Your task to perform on an android device: Open settings on Google Maps Image 0: 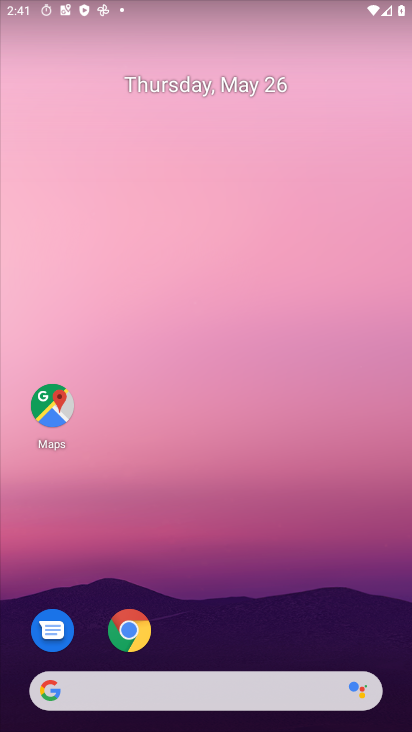
Step 0: click (58, 418)
Your task to perform on an android device: Open settings on Google Maps Image 1: 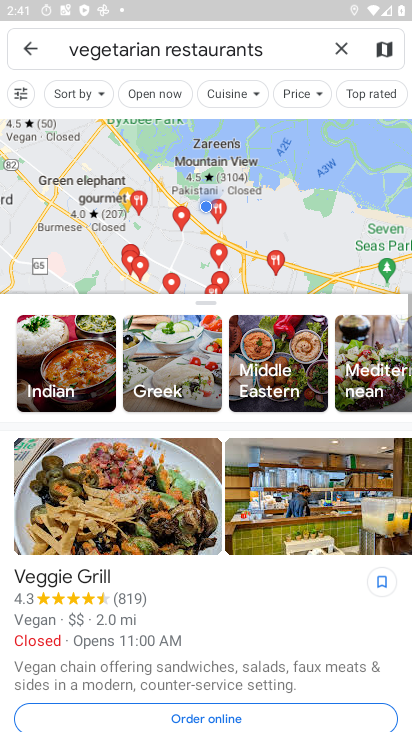
Step 1: click (60, 41)
Your task to perform on an android device: Open settings on Google Maps Image 2: 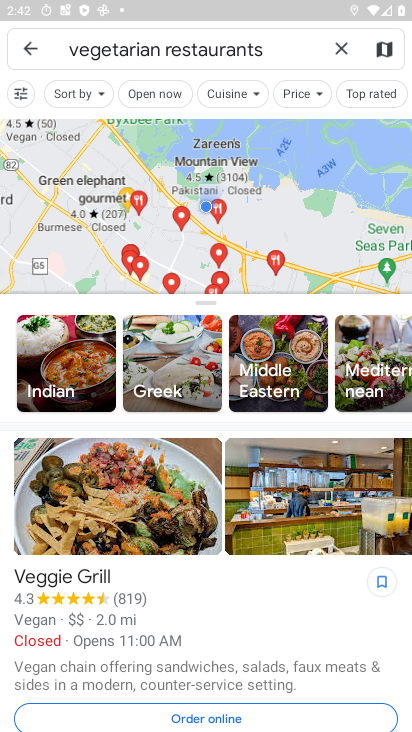
Step 2: click (18, 42)
Your task to perform on an android device: Open settings on Google Maps Image 3: 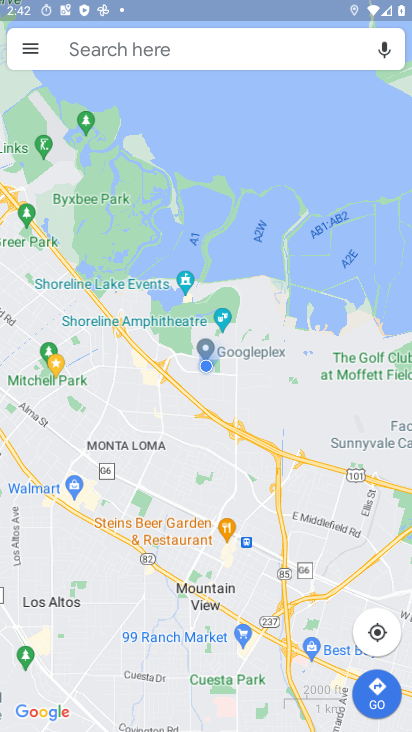
Step 3: click (37, 57)
Your task to perform on an android device: Open settings on Google Maps Image 4: 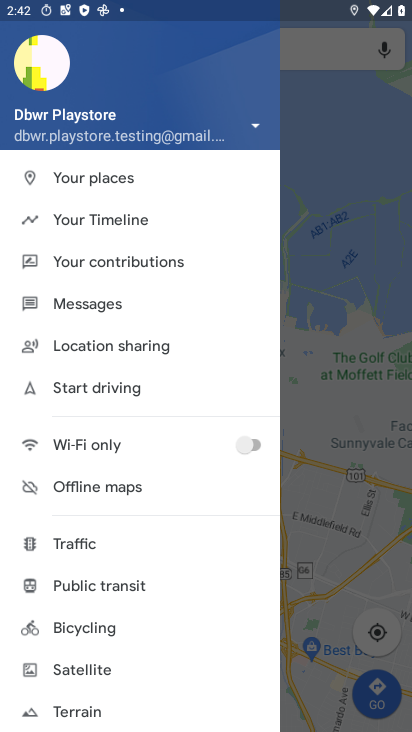
Step 4: drag from (125, 666) to (70, 229)
Your task to perform on an android device: Open settings on Google Maps Image 5: 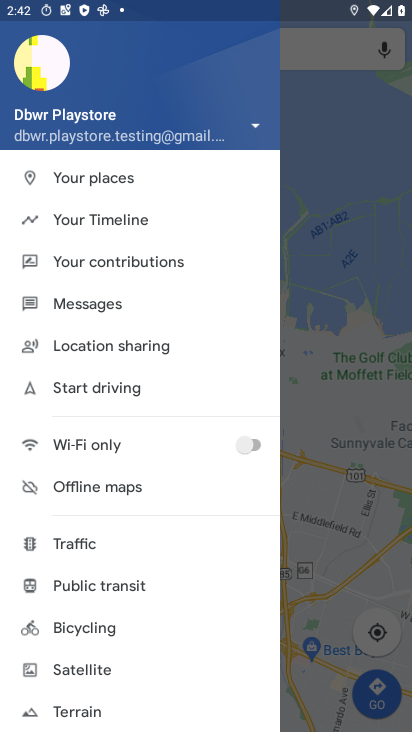
Step 5: drag from (185, 676) to (162, 306)
Your task to perform on an android device: Open settings on Google Maps Image 6: 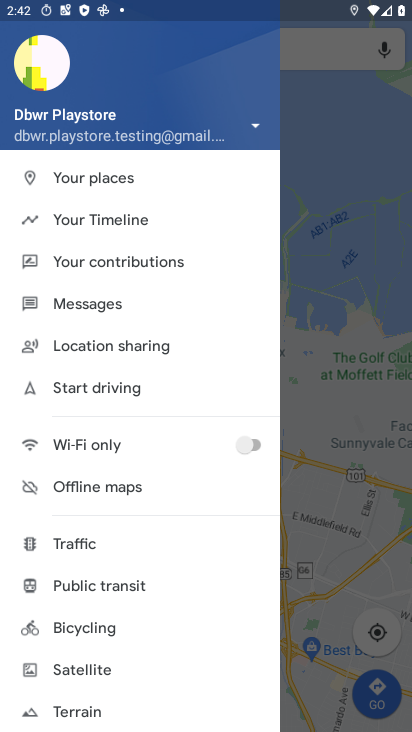
Step 6: drag from (80, 703) to (98, 220)
Your task to perform on an android device: Open settings on Google Maps Image 7: 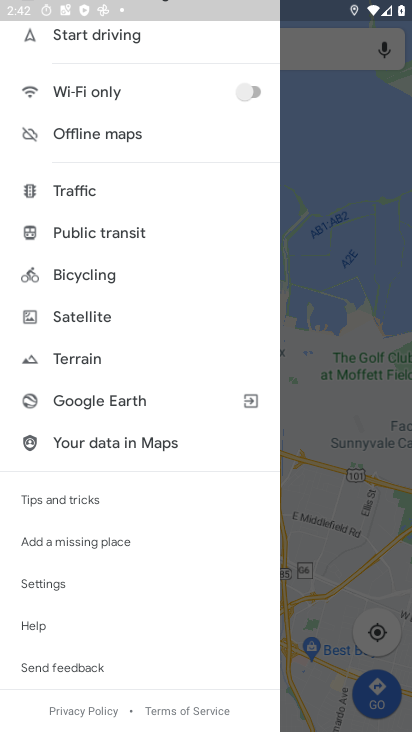
Step 7: click (24, 578)
Your task to perform on an android device: Open settings on Google Maps Image 8: 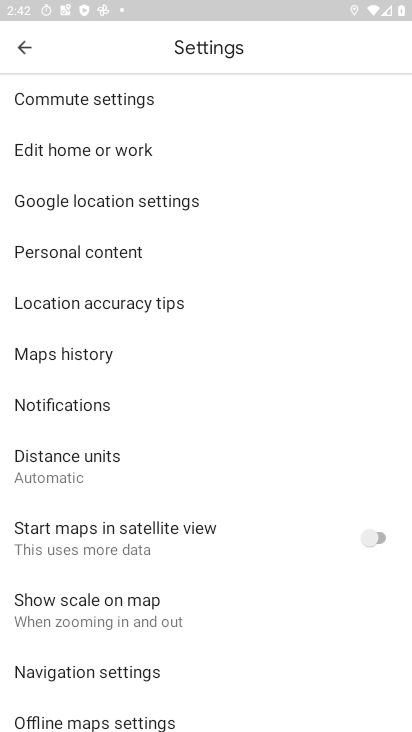
Step 8: task complete